Your task to perform on an android device: change keyboard looks Image 0: 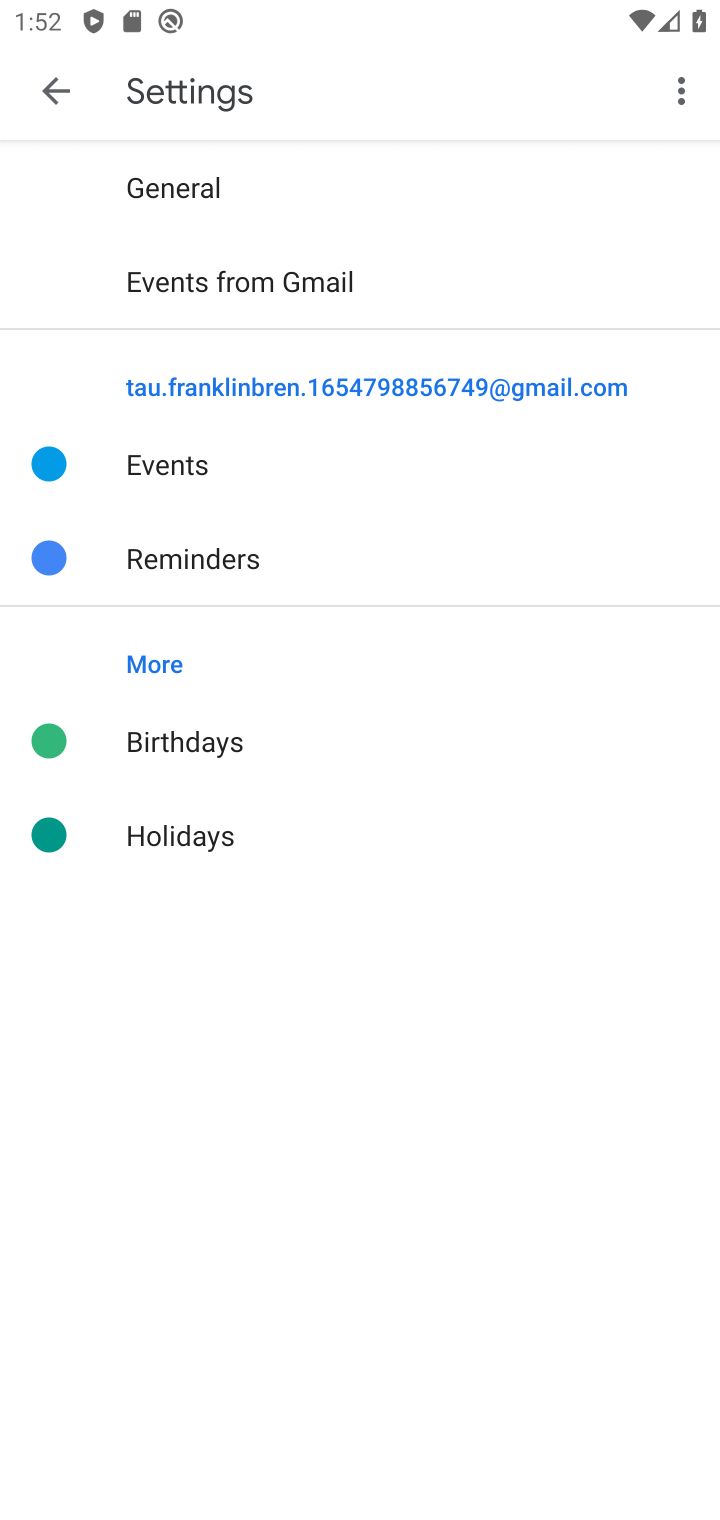
Step 0: press home button
Your task to perform on an android device: change keyboard looks Image 1: 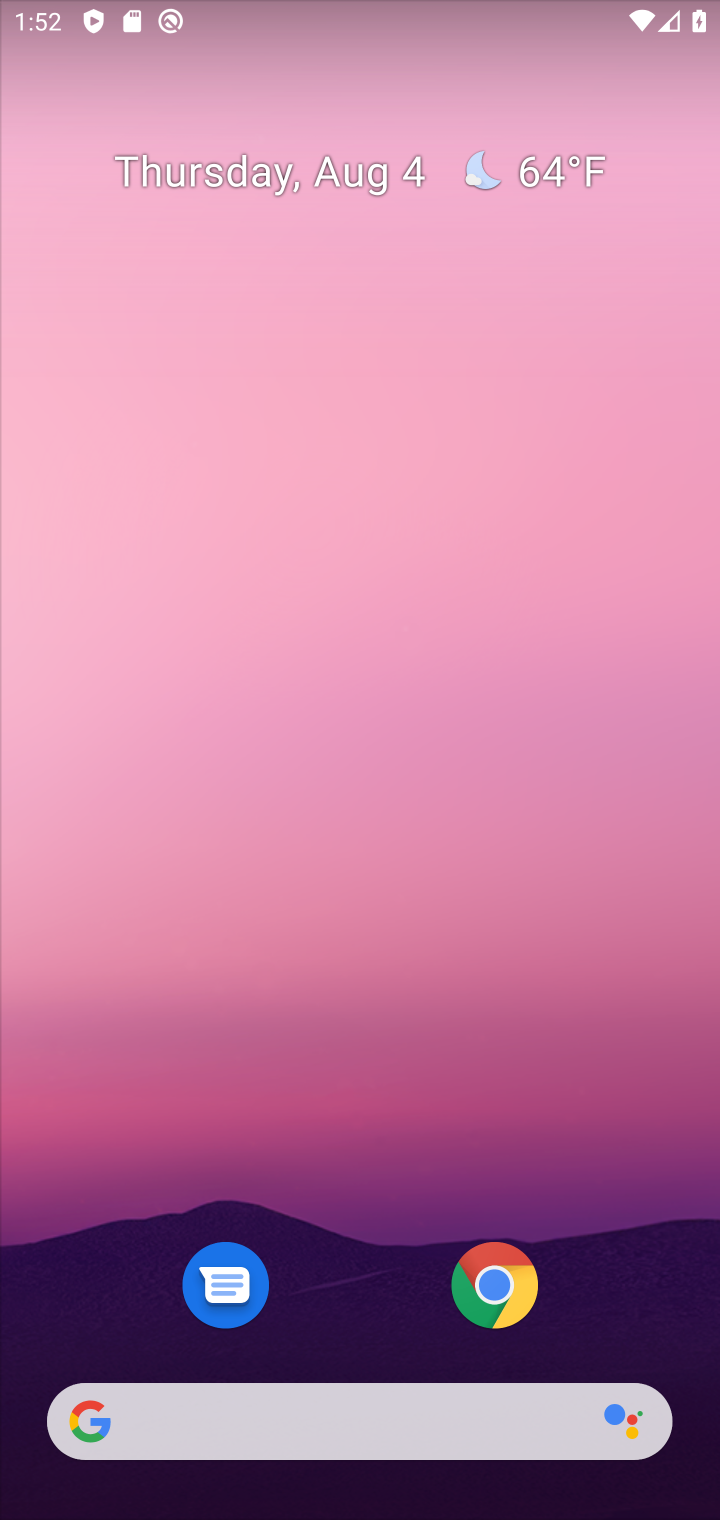
Step 1: drag from (662, 1304) to (599, 173)
Your task to perform on an android device: change keyboard looks Image 2: 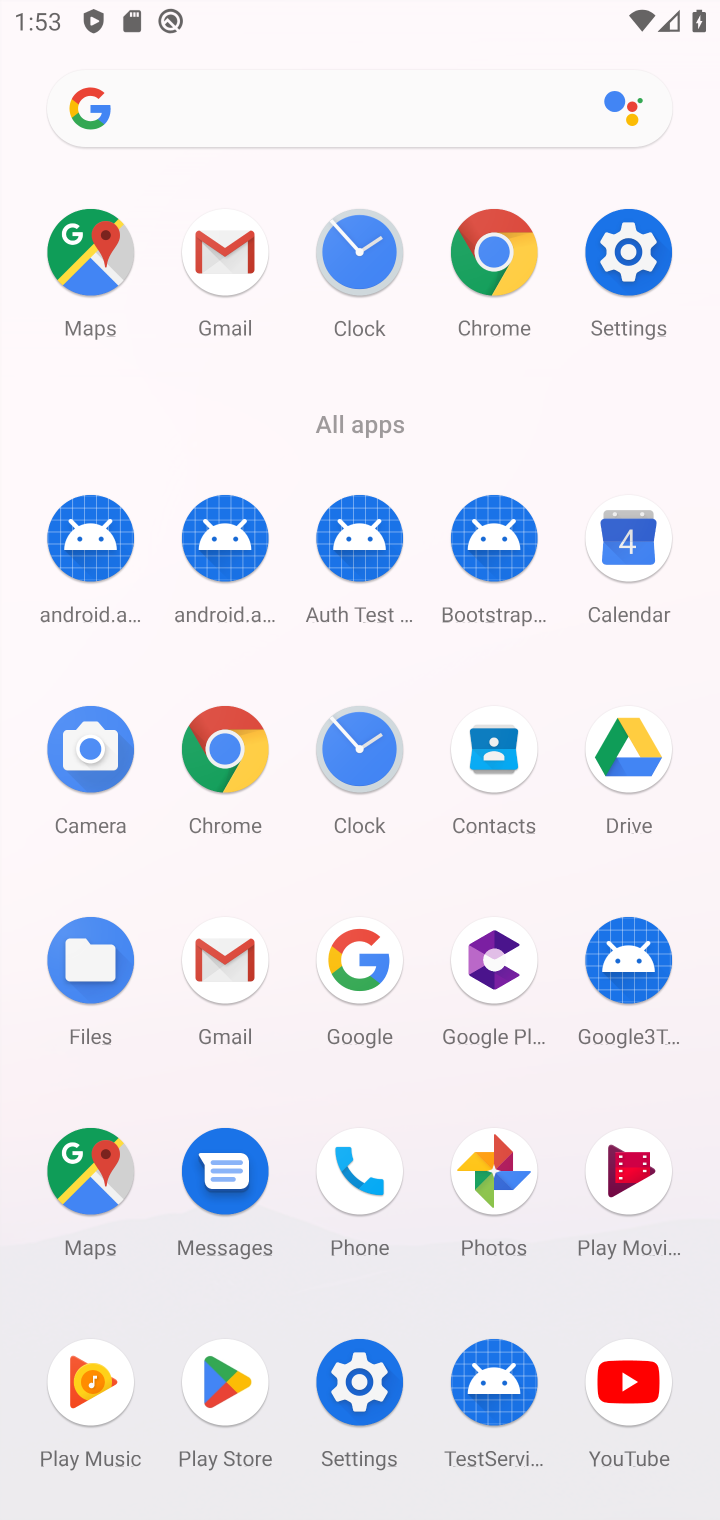
Step 2: click (363, 1377)
Your task to perform on an android device: change keyboard looks Image 3: 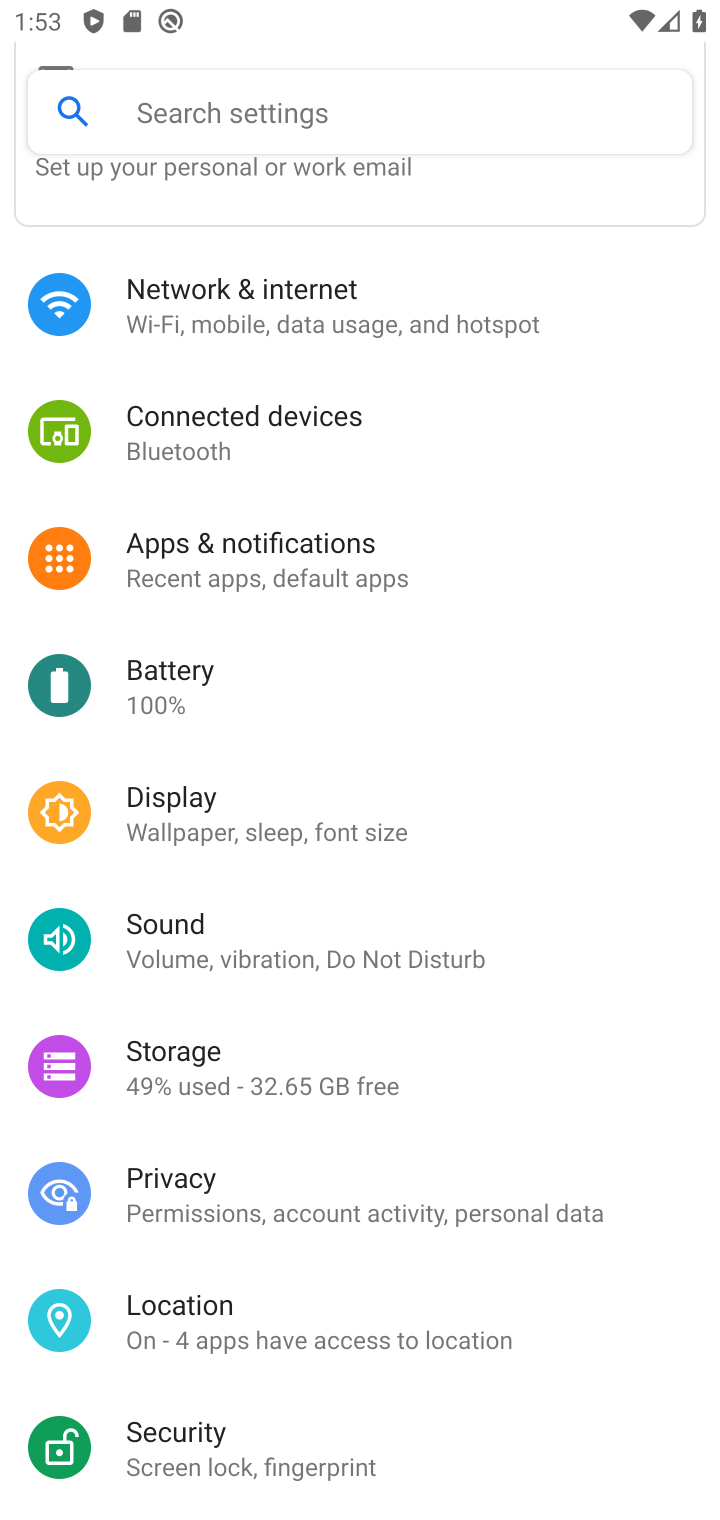
Step 3: drag from (576, 1407) to (551, 584)
Your task to perform on an android device: change keyboard looks Image 4: 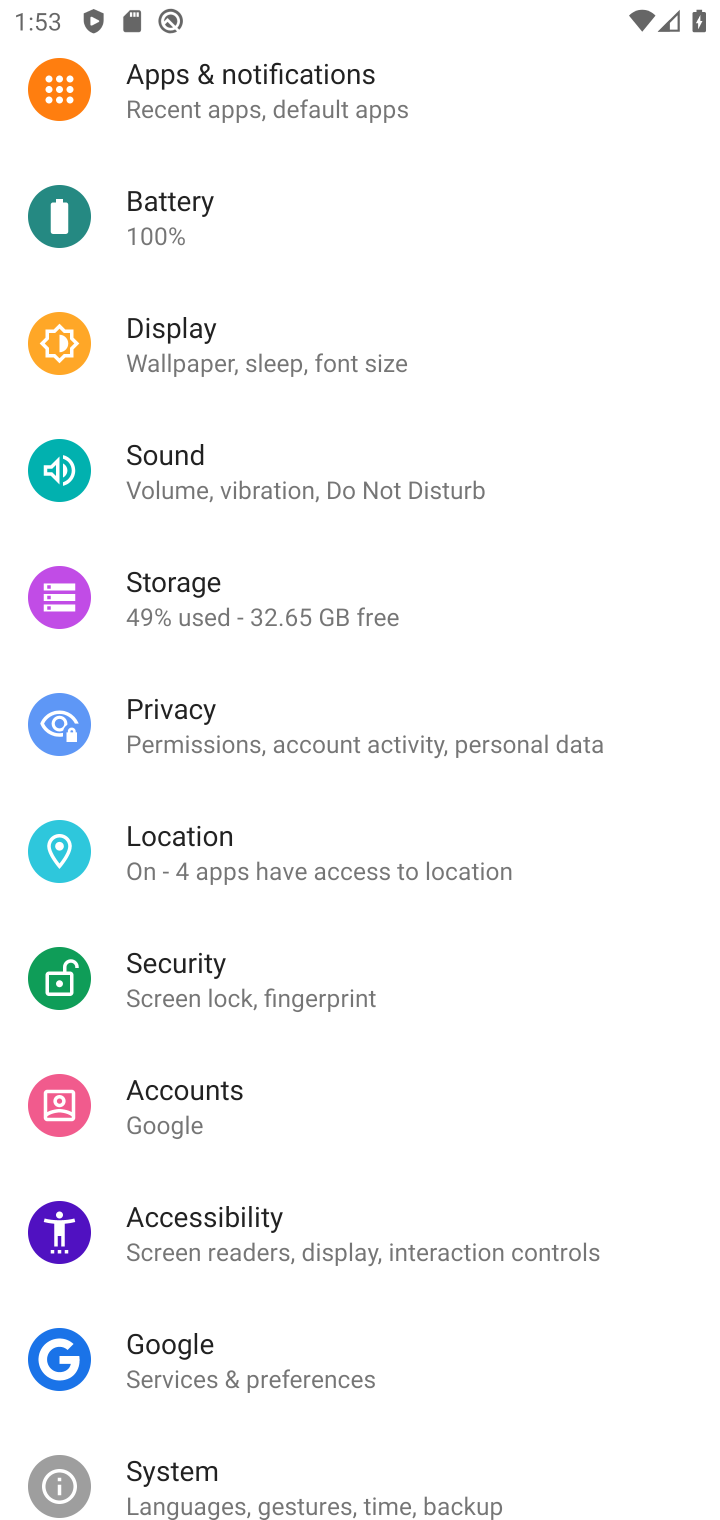
Step 4: drag from (561, 1413) to (547, 554)
Your task to perform on an android device: change keyboard looks Image 5: 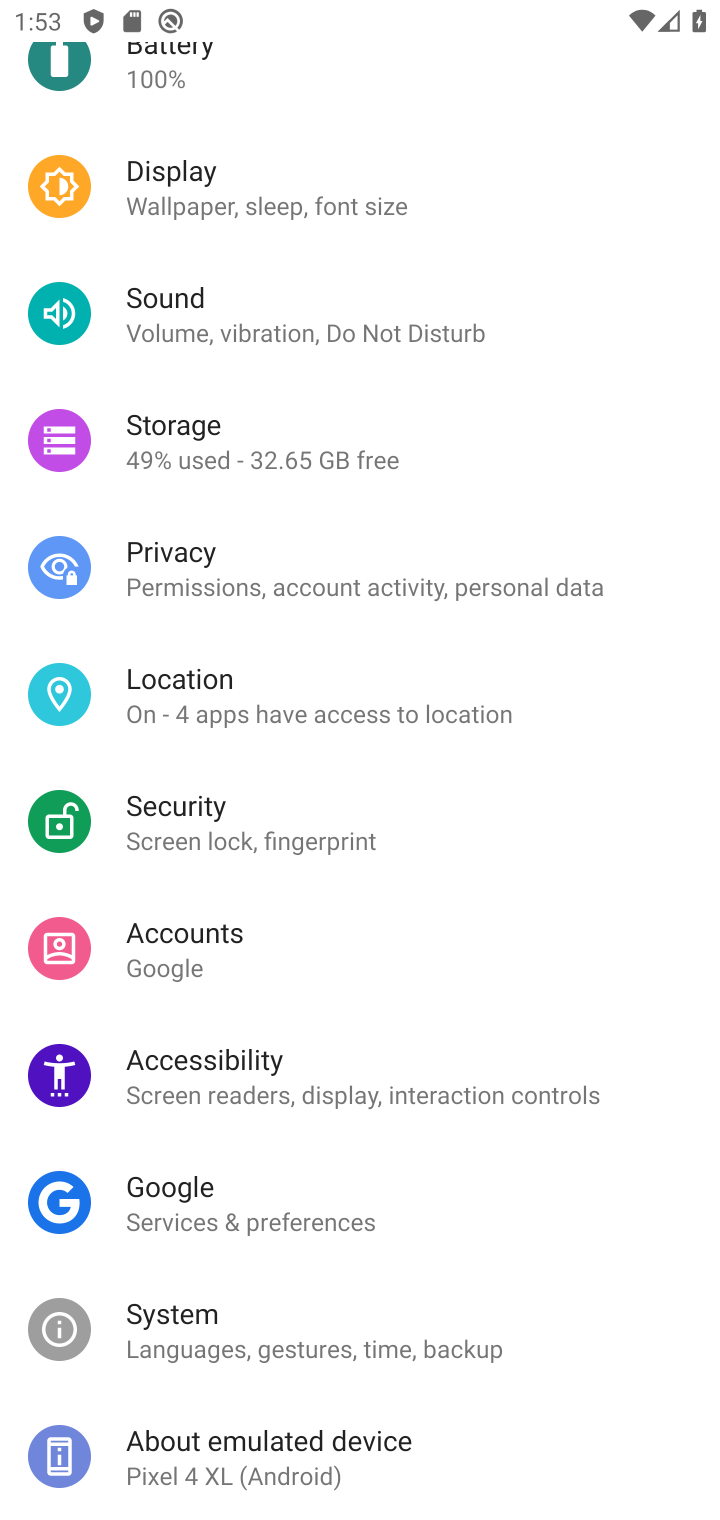
Step 5: click (209, 1311)
Your task to perform on an android device: change keyboard looks Image 6: 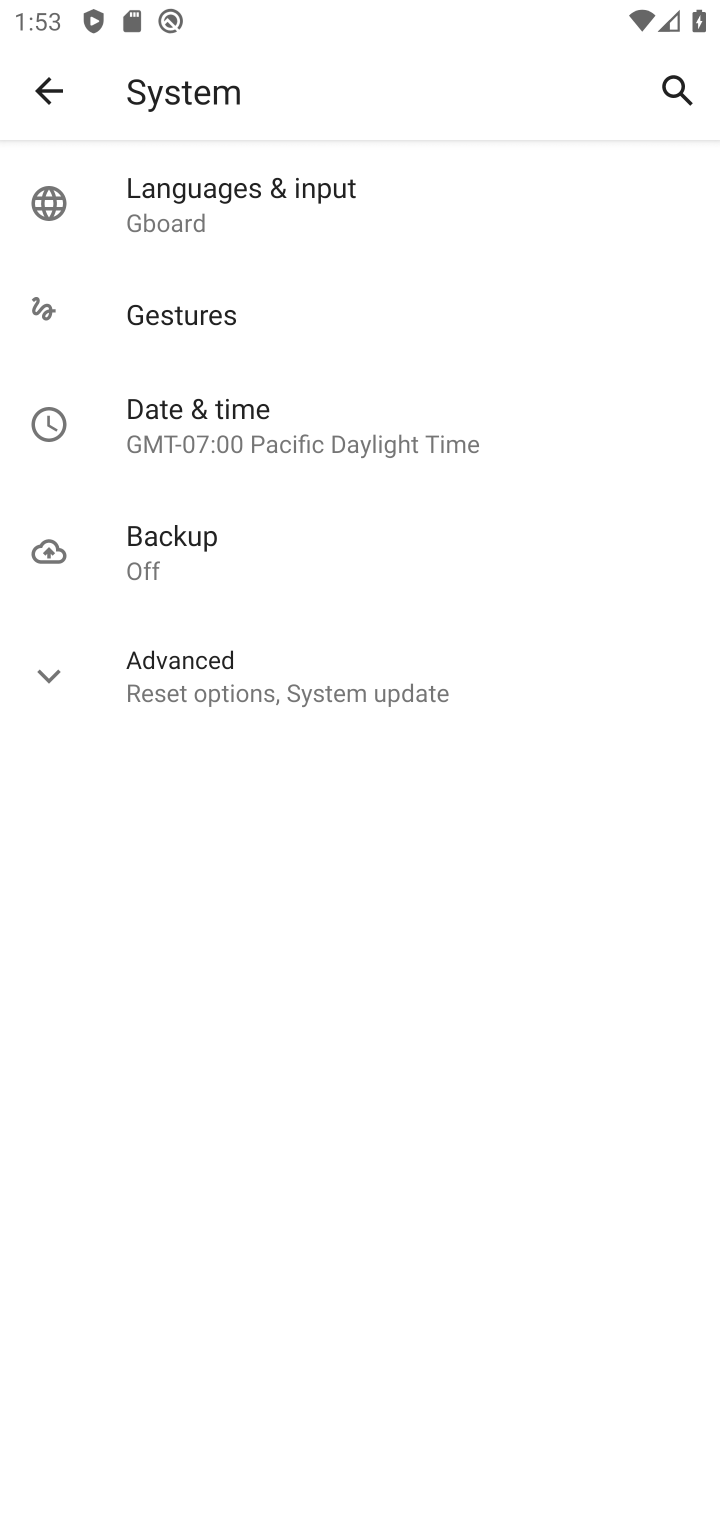
Step 6: click (167, 208)
Your task to perform on an android device: change keyboard looks Image 7: 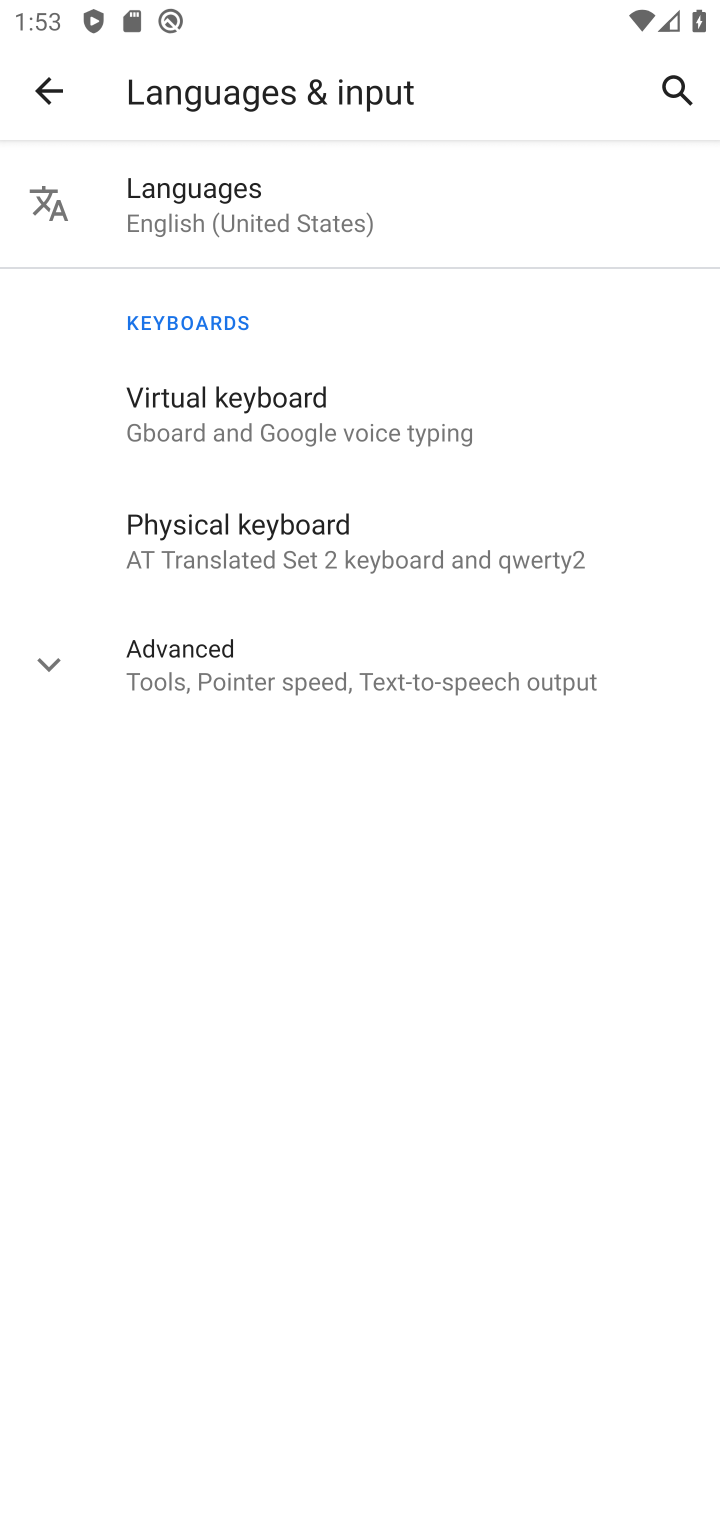
Step 7: click (227, 536)
Your task to perform on an android device: change keyboard looks Image 8: 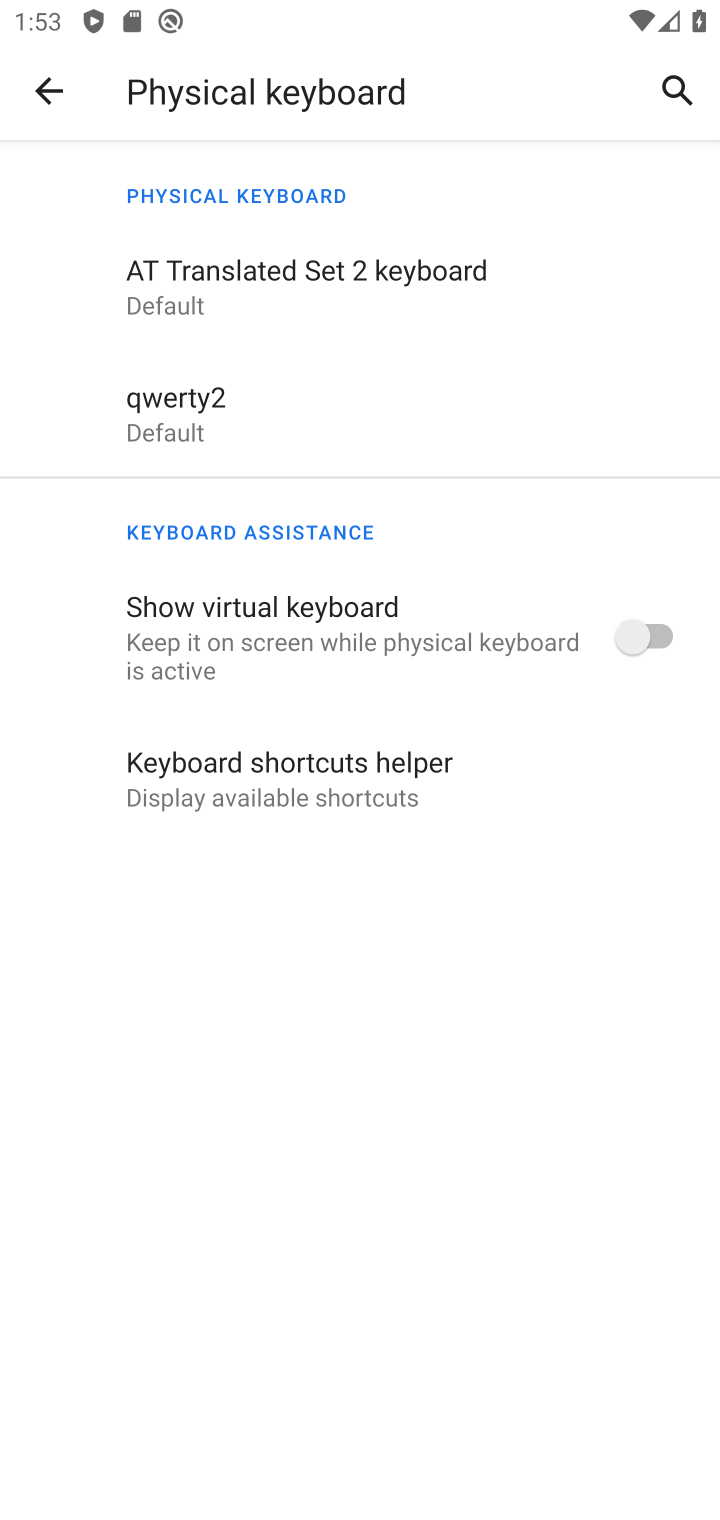
Step 8: click (155, 407)
Your task to perform on an android device: change keyboard looks Image 9: 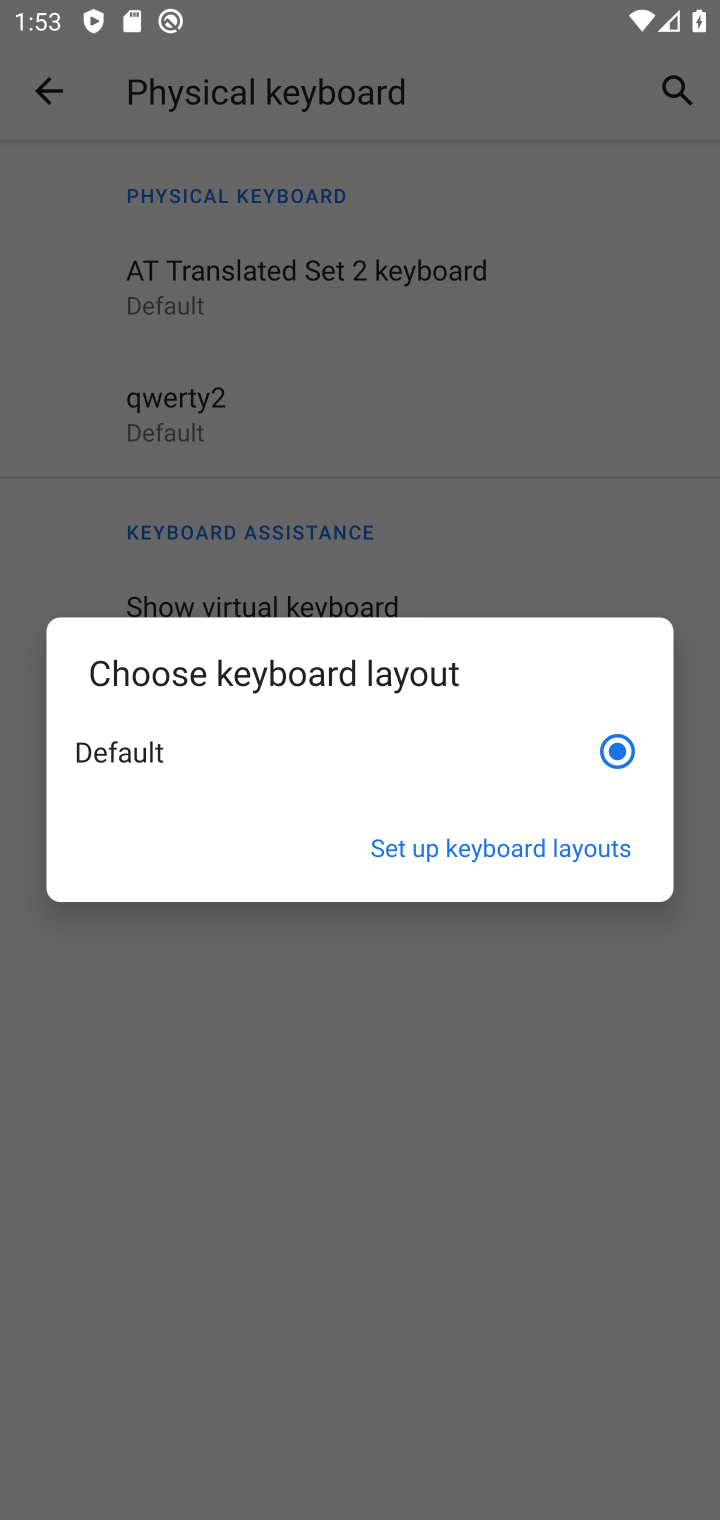
Step 9: click (510, 846)
Your task to perform on an android device: change keyboard looks Image 10: 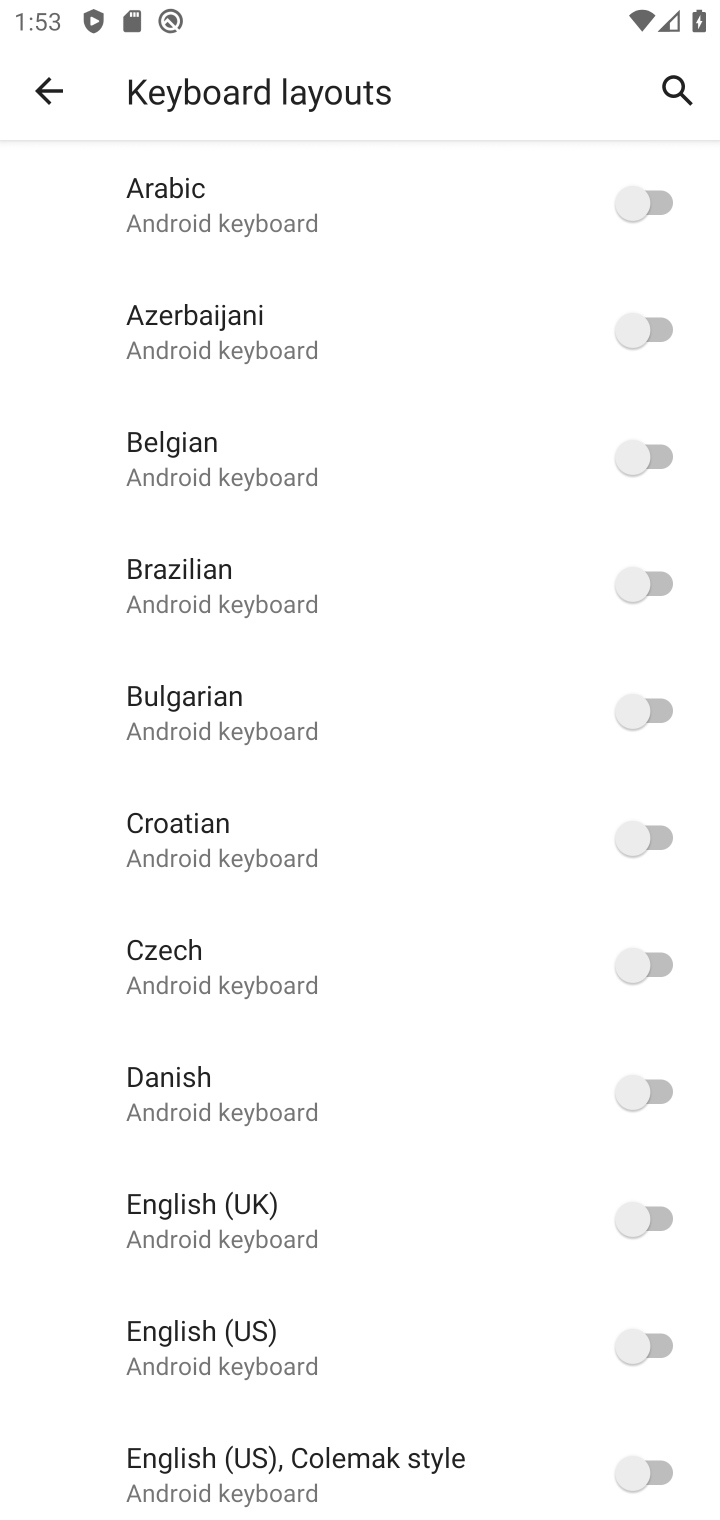
Step 10: click (666, 1208)
Your task to perform on an android device: change keyboard looks Image 11: 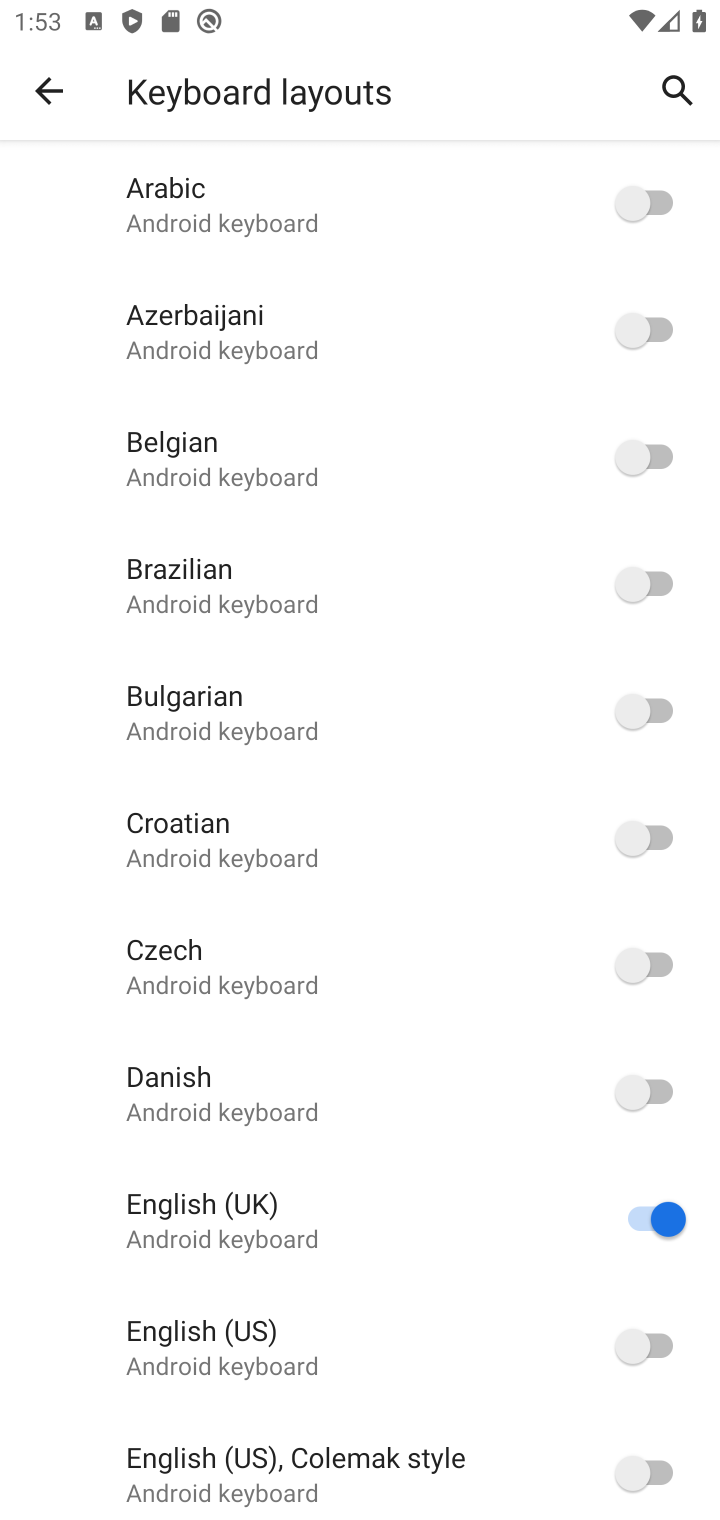
Step 11: task complete